Your task to perform on an android device: search for starred emails in the gmail app Image 0: 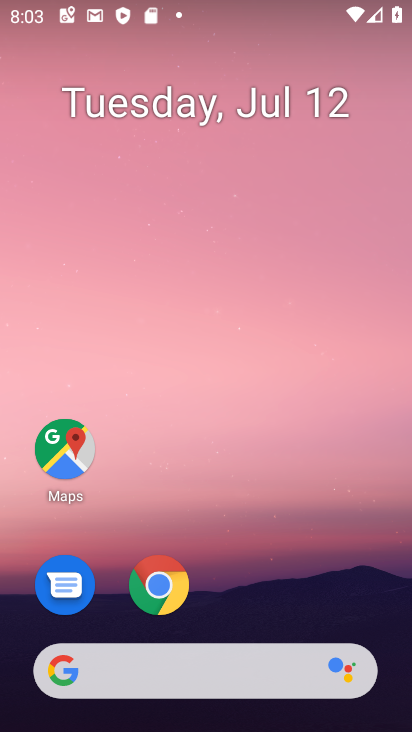
Step 0: drag from (288, 566) to (319, 0)
Your task to perform on an android device: search for starred emails in the gmail app Image 1: 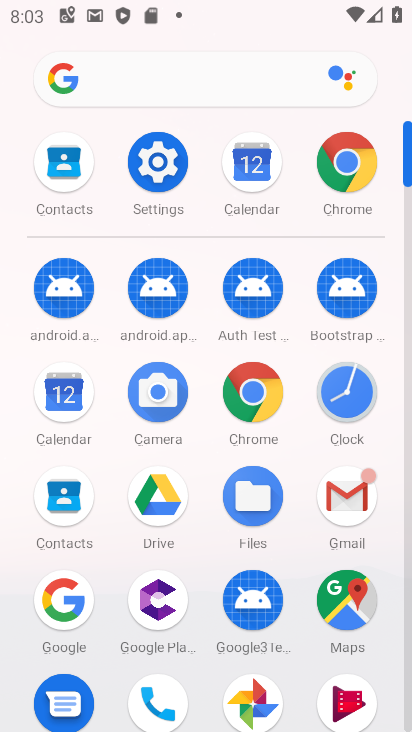
Step 1: click (341, 505)
Your task to perform on an android device: search for starred emails in the gmail app Image 2: 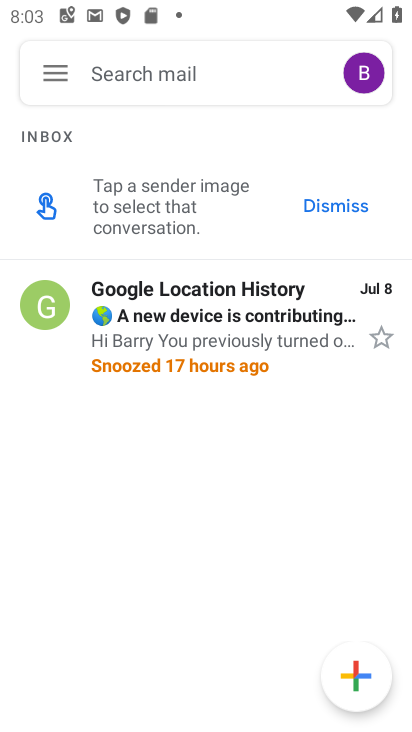
Step 2: click (53, 73)
Your task to perform on an android device: search for starred emails in the gmail app Image 3: 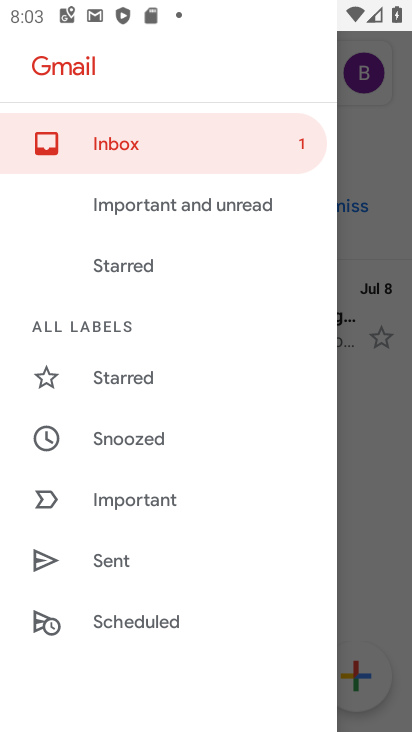
Step 3: click (109, 367)
Your task to perform on an android device: search for starred emails in the gmail app Image 4: 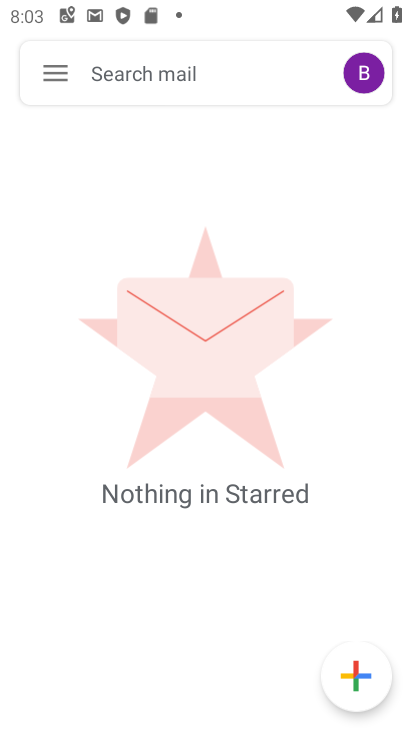
Step 4: task complete